Your task to perform on an android device: open app "Messenger Lite" (install if not already installed), go to login, and select forgot password Image 0: 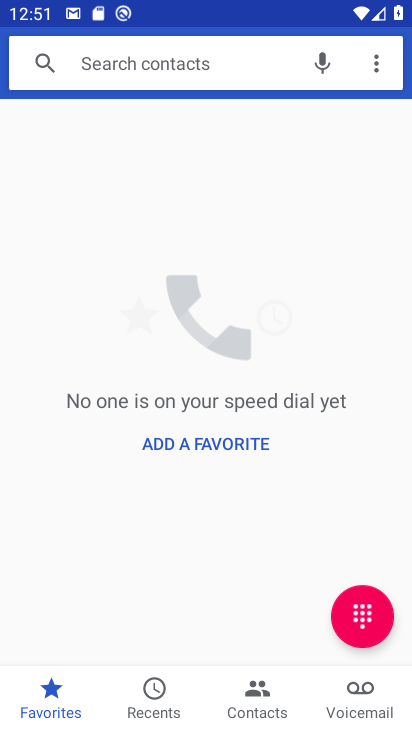
Step 0: press home button
Your task to perform on an android device: open app "Messenger Lite" (install if not already installed), go to login, and select forgot password Image 1: 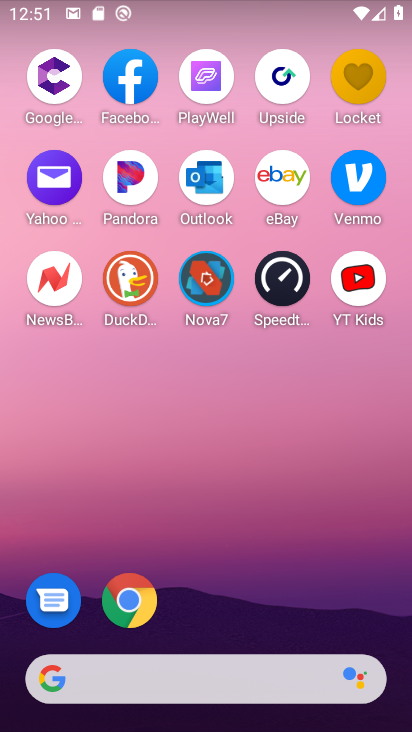
Step 1: click (253, 99)
Your task to perform on an android device: open app "Messenger Lite" (install if not already installed), go to login, and select forgot password Image 2: 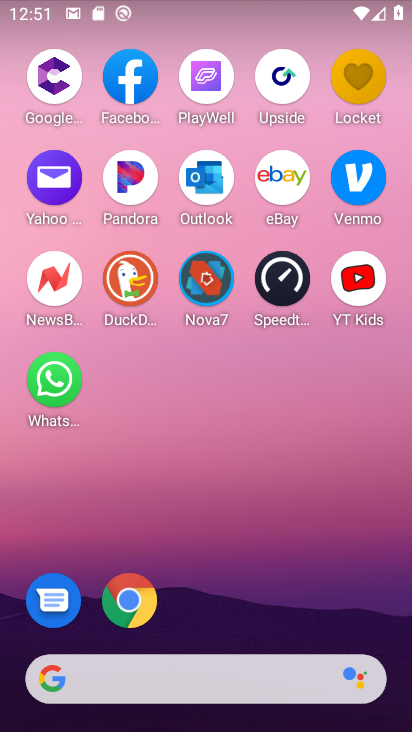
Step 2: drag from (197, 641) to (276, 3)
Your task to perform on an android device: open app "Messenger Lite" (install if not already installed), go to login, and select forgot password Image 3: 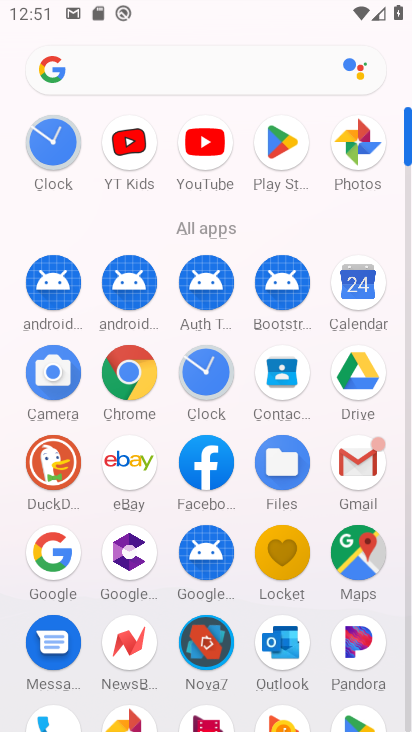
Step 3: click (287, 155)
Your task to perform on an android device: open app "Messenger Lite" (install if not already installed), go to login, and select forgot password Image 4: 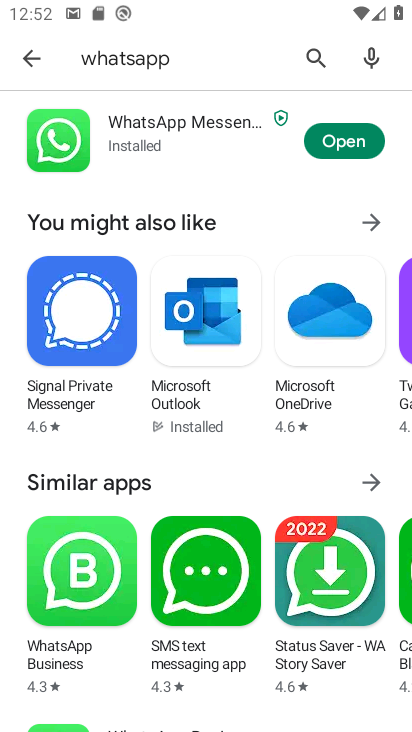
Step 4: click (308, 62)
Your task to perform on an android device: open app "Messenger Lite" (install if not already installed), go to login, and select forgot password Image 5: 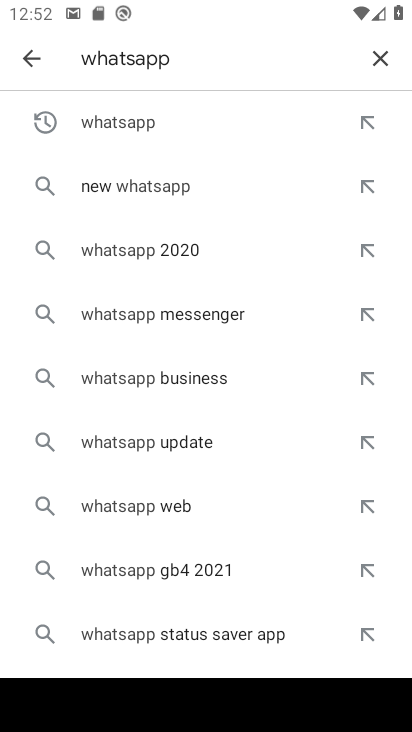
Step 5: click (370, 62)
Your task to perform on an android device: open app "Messenger Lite" (install if not already installed), go to login, and select forgot password Image 6: 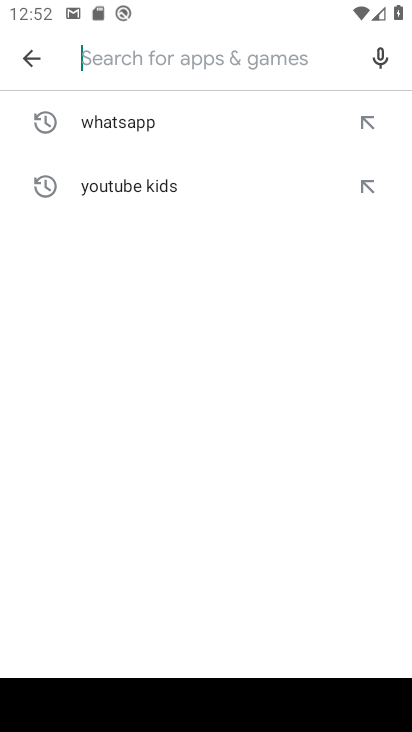
Step 6: type "messanger"
Your task to perform on an android device: open app "Messenger Lite" (install if not already installed), go to login, and select forgot password Image 7: 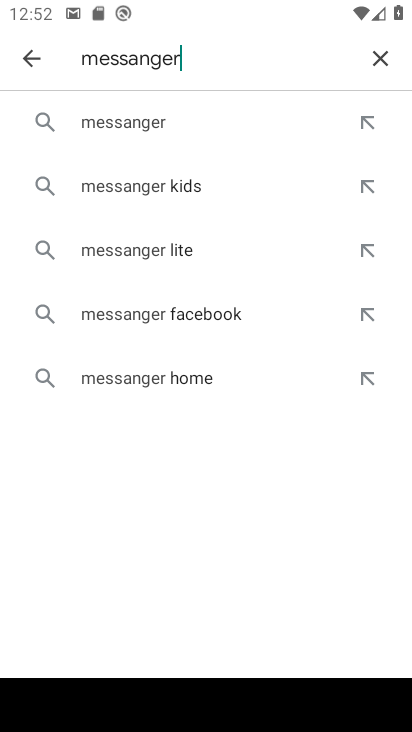
Step 7: click (207, 113)
Your task to perform on an android device: open app "Messenger Lite" (install if not already installed), go to login, and select forgot password Image 8: 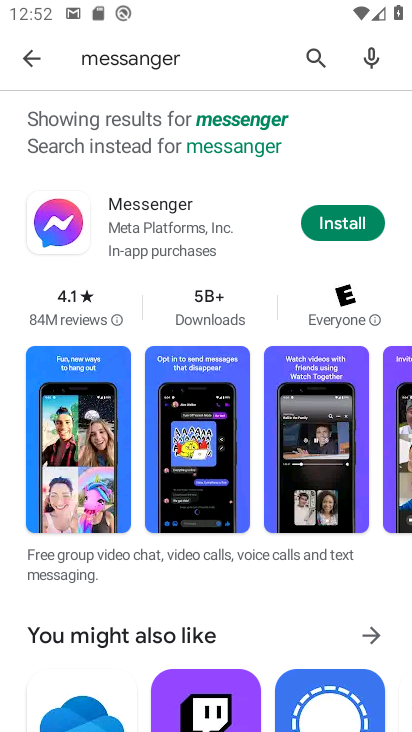
Step 8: click (312, 205)
Your task to perform on an android device: open app "Messenger Lite" (install if not already installed), go to login, and select forgot password Image 9: 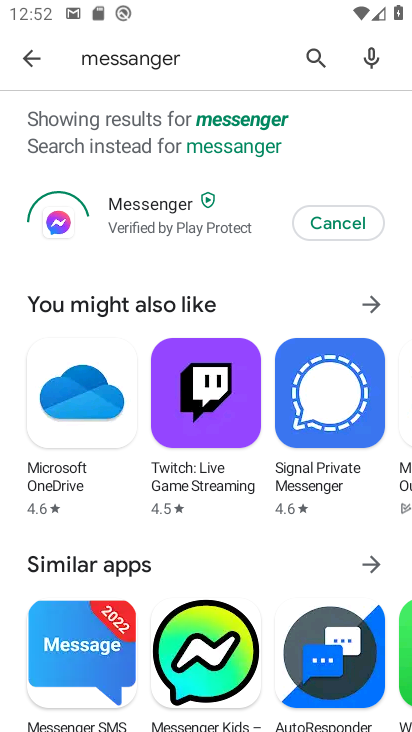
Step 9: task complete